Your task to perform on an android device: Toggle notifications for the Google Photos app Image 0: 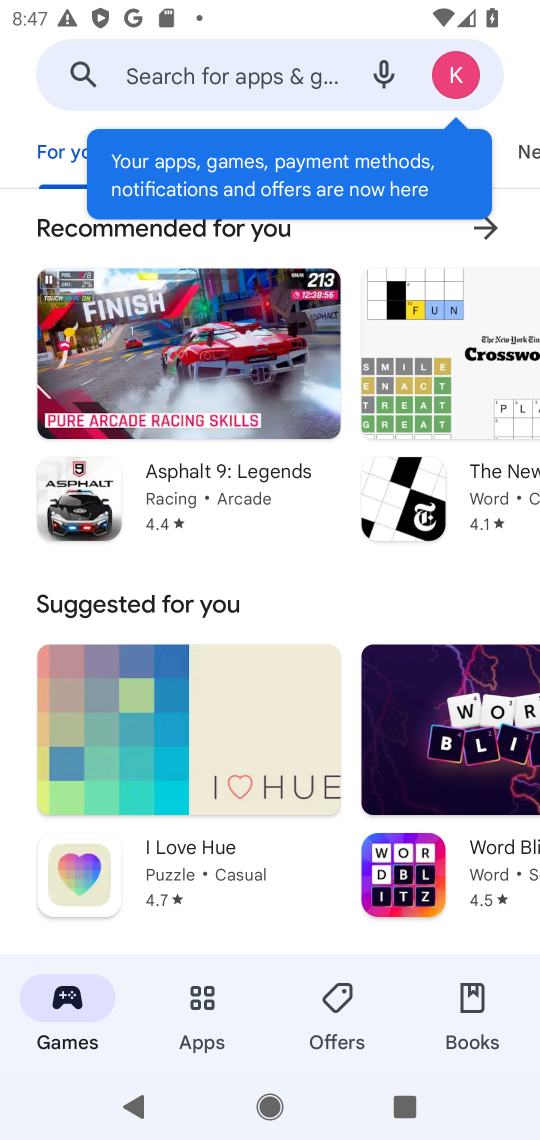
Step 0: press home button
Your task to perform on an android device: Toggle notifications for the Google Photos app Image 1: 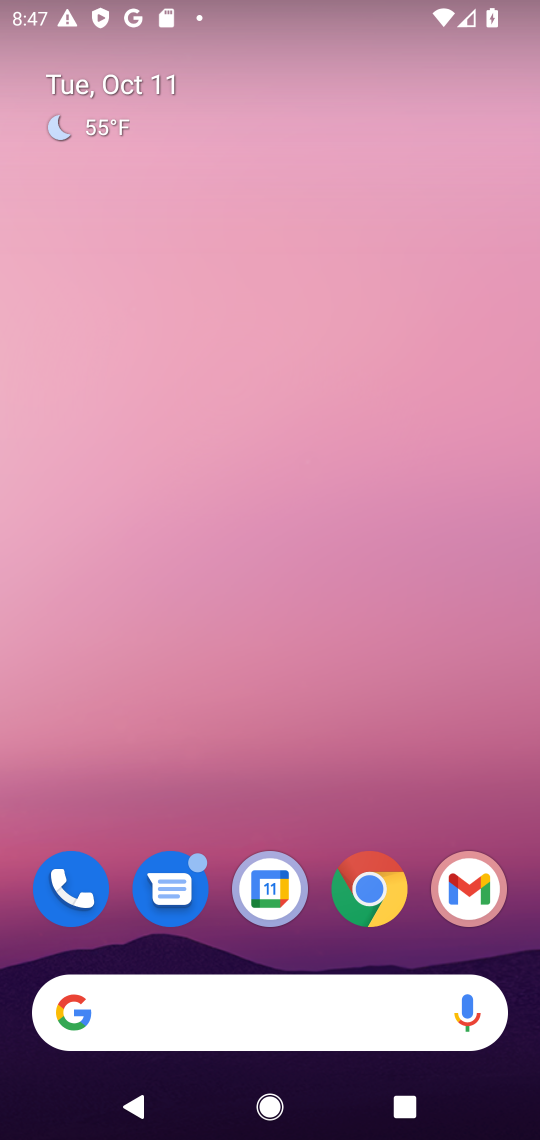
Step 1: drag from (350, 879) to (411, 186)
Your task to perform on an android device: Toggle notifications for the Google Photos app Image 2: 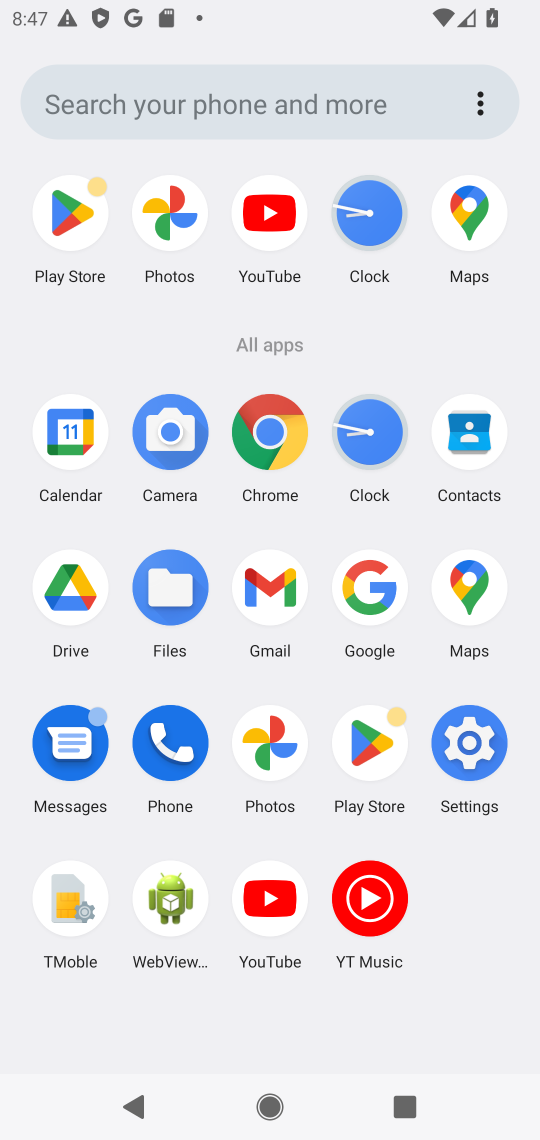
Step 2: click (253, 756)
Your task to perform on an android device: Toggle notifications for the Google Photos app Image 3: 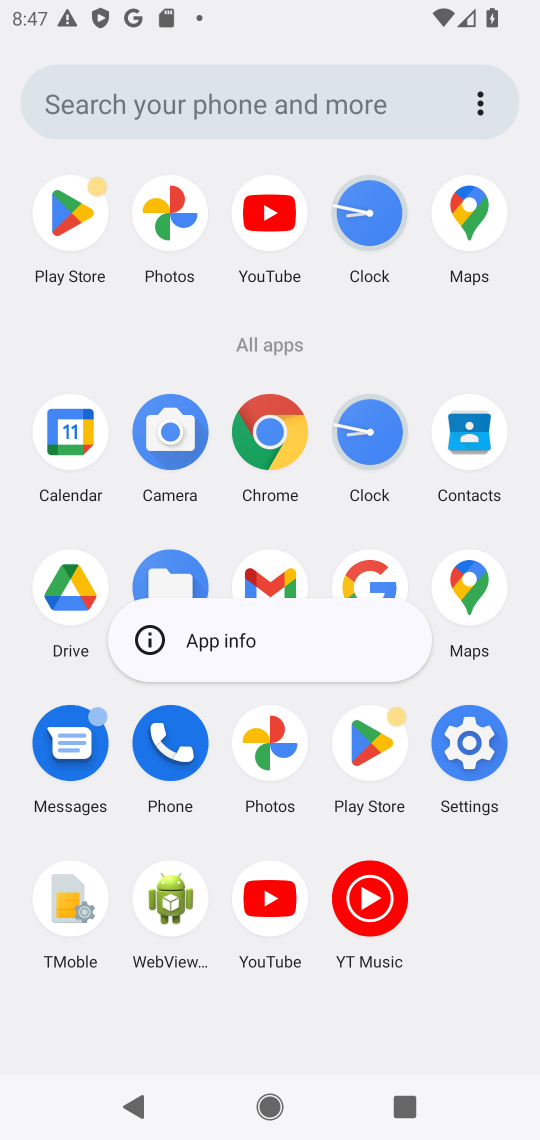
Step 3: click (208, 645)
Your task to perform on an android device: Toggle notifications for the Google Photos app Image 4: 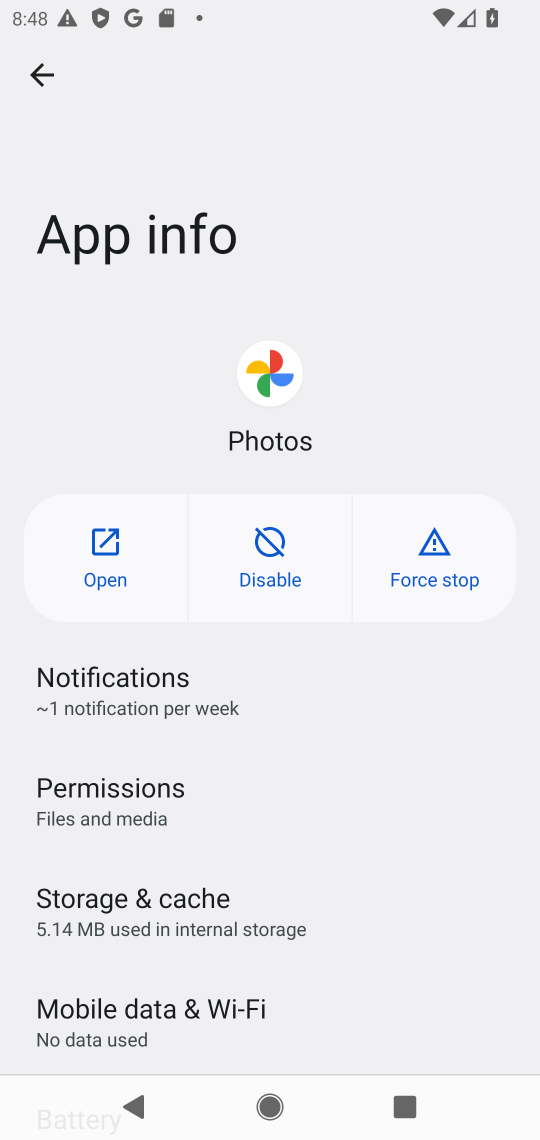
Step 4: click (176, 705)
Your task to perform on an android device: Toggle notifications for the Google Photos app Image 5: 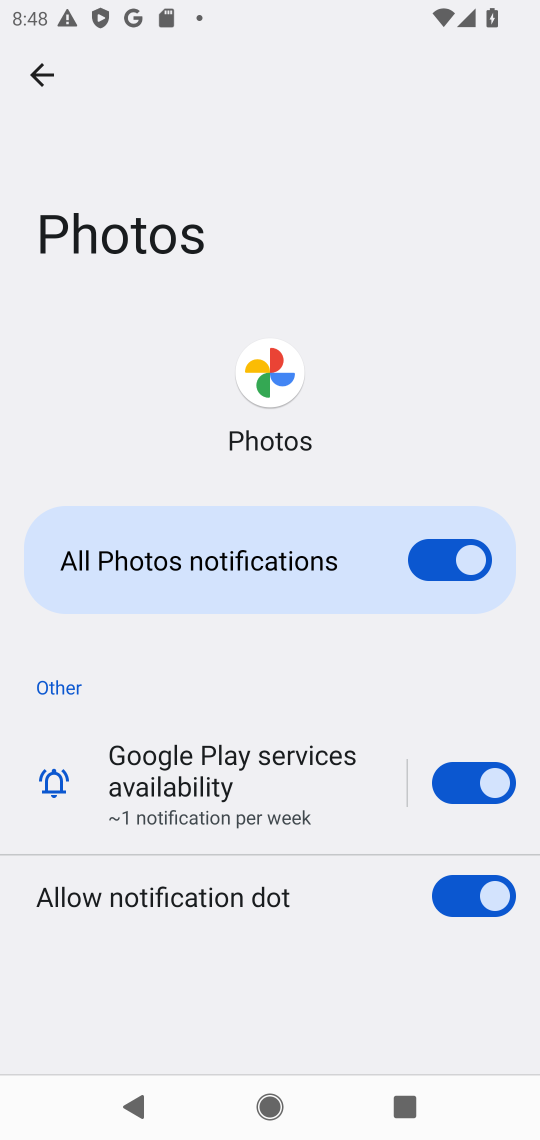
Step 5: click (457, 561)
Your task to perform on an android device: Toggle notifications for the Google Photos app Image 6: 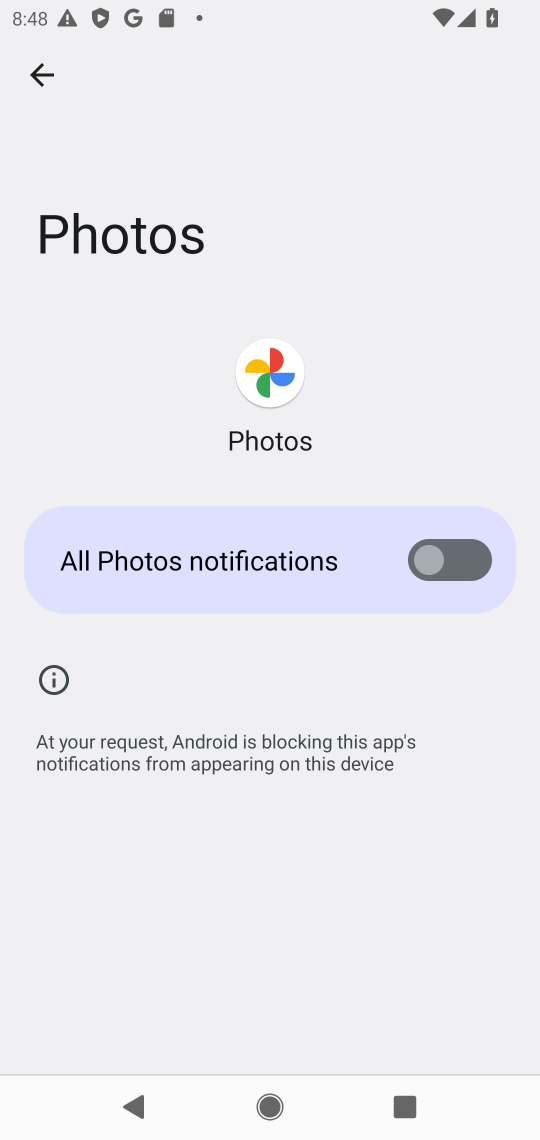
Step 6: task complete